Your task to perform on an android device: toggle priority inbox in the gmail app Image 0: 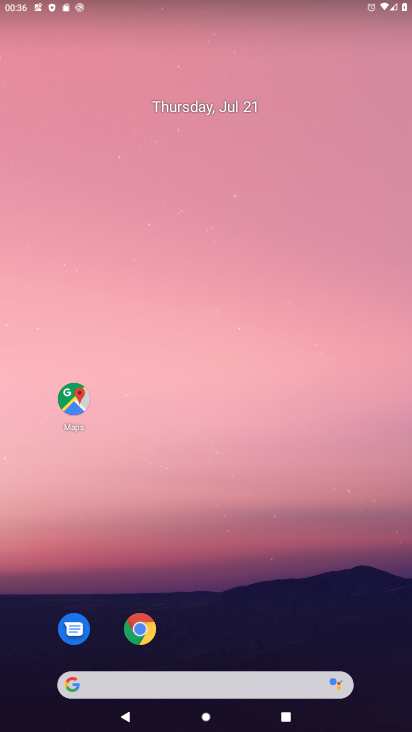
Step 0: drag from (299, 536) to (247, 44)
Your task to perform on an android device: toggle priority inbox in the gmail app Image 1: 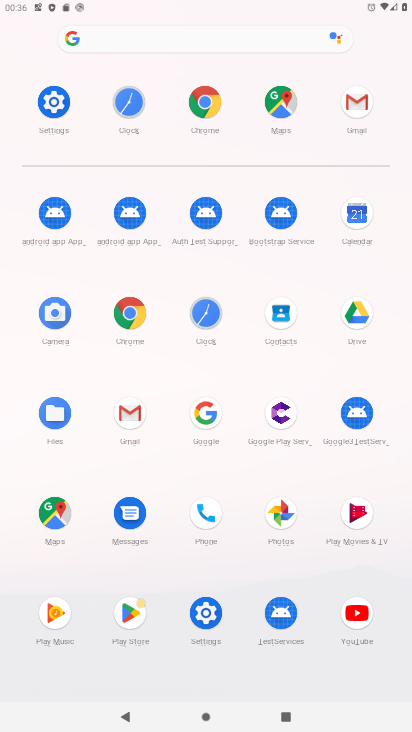
Step 1: click (132, 410)
Your task to perform on an android device: toggle priority inbox in the gmail app Image 2: 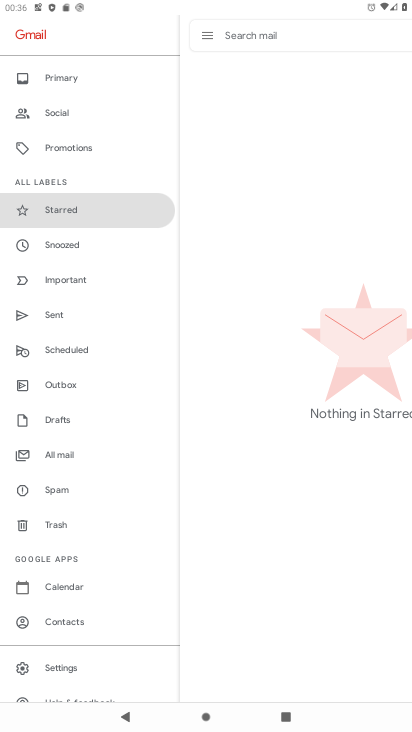
Step 2: click (59, 667)
Your task to perform on an android device: toggle priority inbox in the gmail app Image 3: 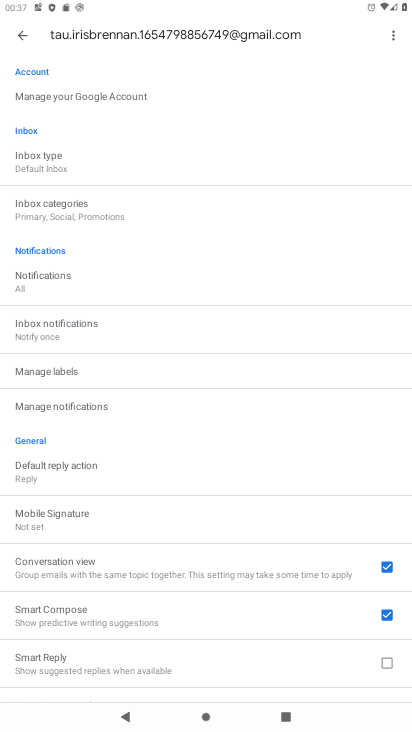
Step 3: drag from (132, 184) to (164, 524)
Your task to perform on an android device: toggle priority inbox in the gmail app Image 4: 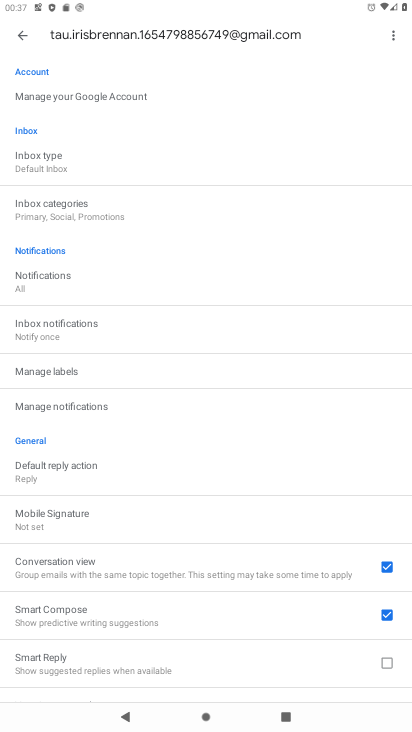
Step 4: click (64, 172)
Your task to perform on an android device: toggle priority inbox in the gmail app Image 5: 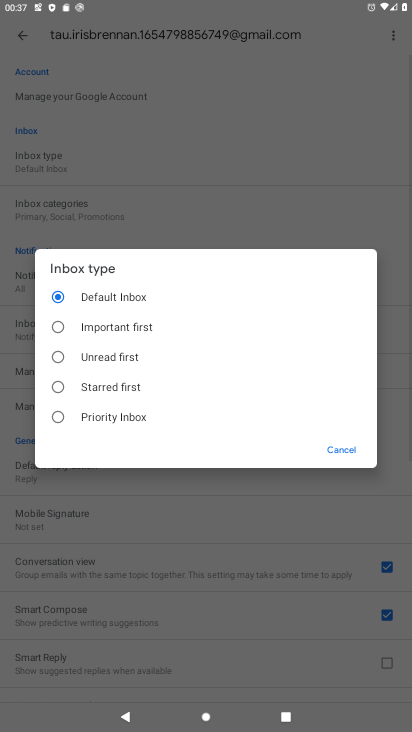
Step 5: click (121, 428)
Your task to perform on an android device: toggle priority inbox in the gmail app Image 6: 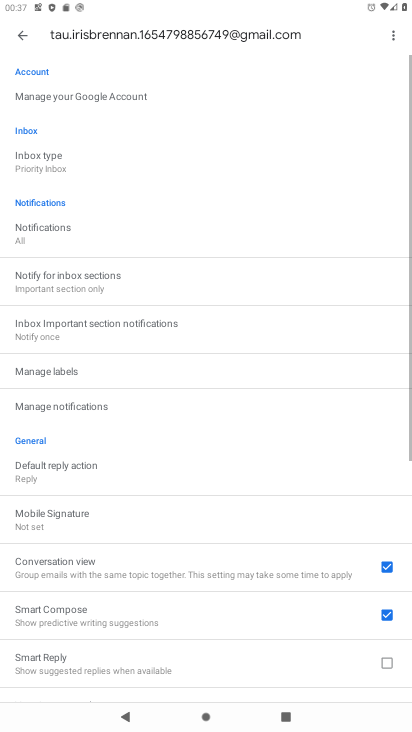
Step 6: task complete